Your task to perform on an android device: install app "DoorDash - Dasher" Image 0: 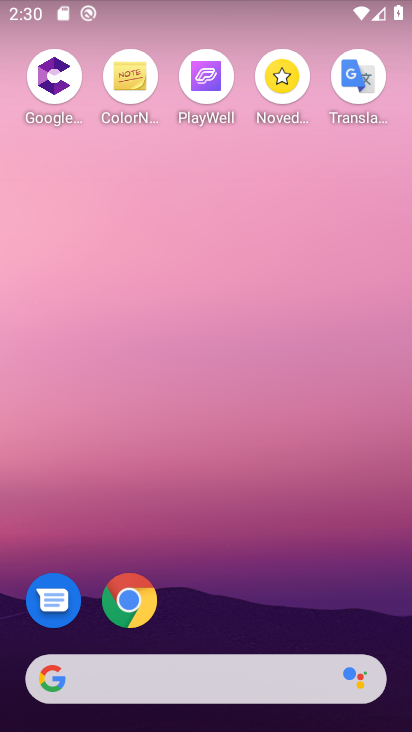
Step 0: drag from (260, 487) to (310, 149)
Your task to perform on an android device: install app "DoorDash - Dasher" Image 1: 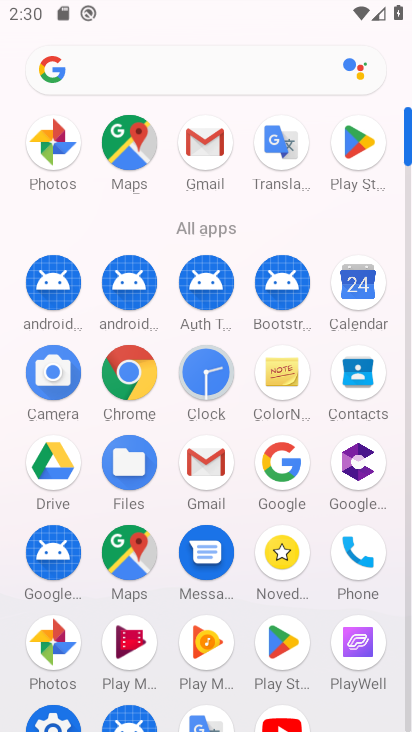
Step 1: click (348, 149)
Your task to perform on an android device: install app "DoorDash - Dasher" Image 2: 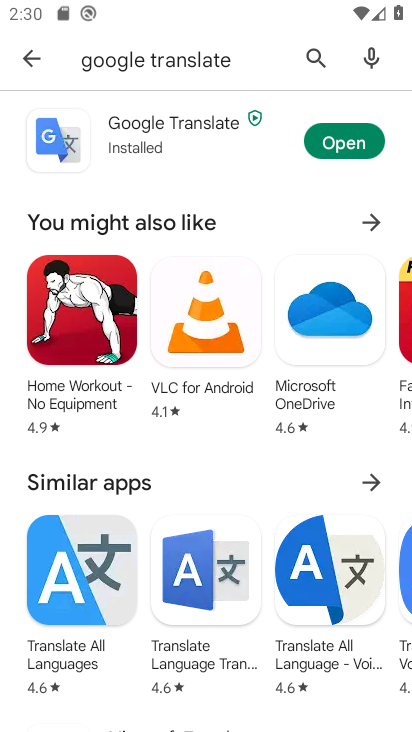
Step 2: click (322, 45)
Your task to perform on an android device: install app "DoorDash - Dasher" Image 3: 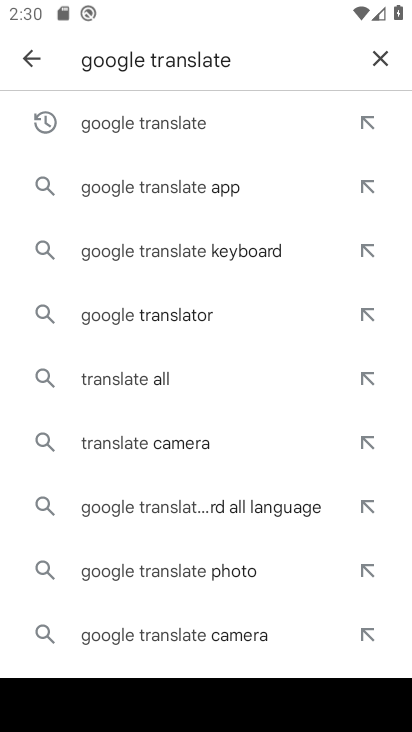
Step 3: click (372, 52)
Your task to perform on an android device: install app "DoorDash - Dasher" Image 4: 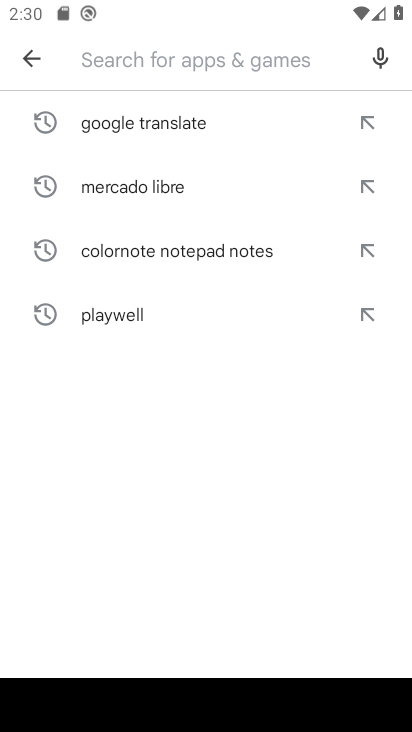
Step 4: click (107, 54)
Your task to perform on an android device: install app "DoorDash - Dasher" Image 5: 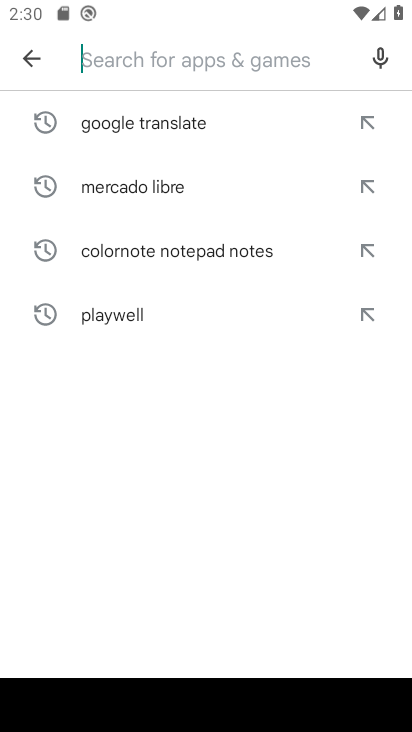
Step 5: type "DoorDash - Dasher"
Your task to perform on an android device: install app "DoorDash - Dasher" Image 6: 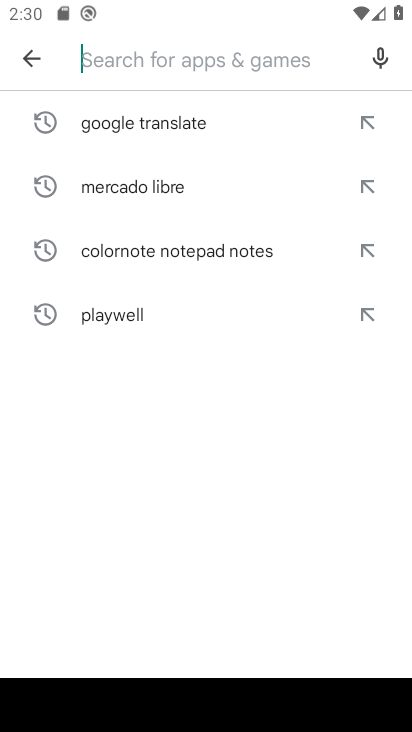
Step 6: click (308, 551)
Your task to perform on an android device: install app "DoorDash - Dasher" Image 7: 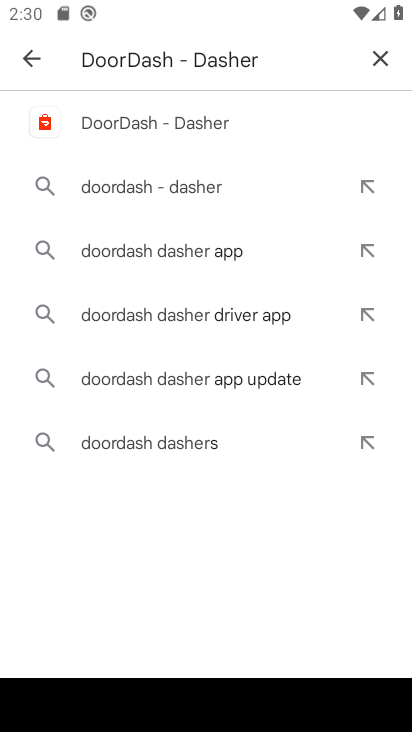
Step 7: click (193, 111)
Your task to perform on an android device: install app "DoorDash - Dasher" Image 8: 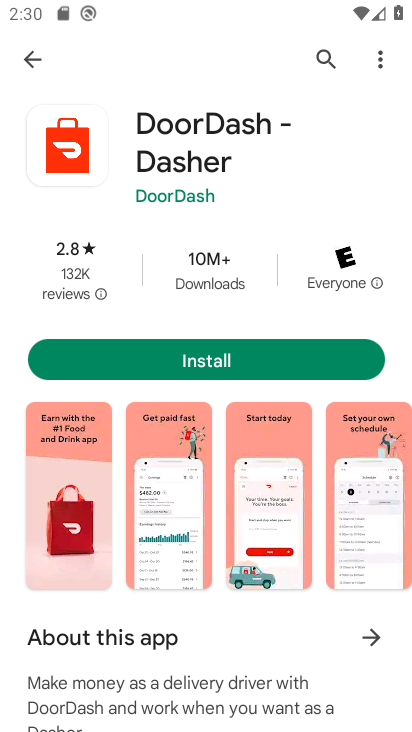
Step 8: click (166, 369)
Your task to perform on an android device: install app "DoorDash - Dasher" Image 9: 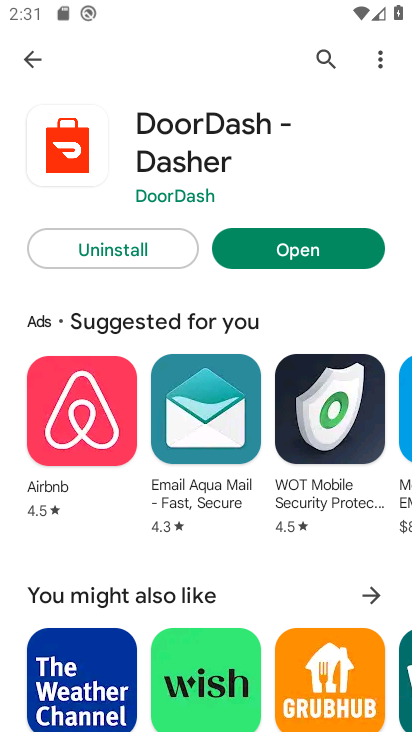
Step 9: task complete